Your task to perform on an android device: Go to Google maps Image 0: 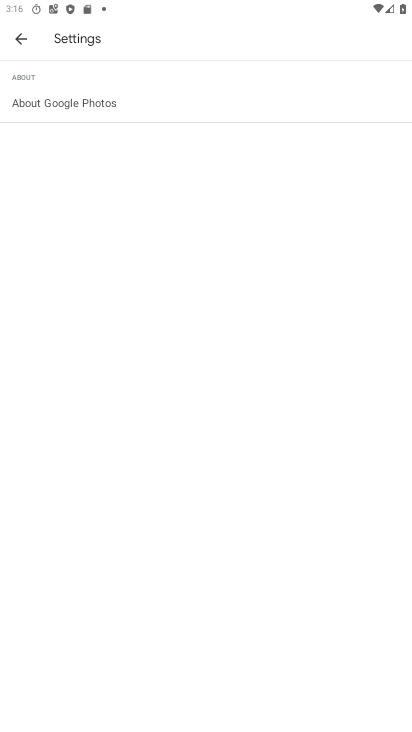
Step 0: press home button
Your task to perform on an android device: Go to Google maps Image 1: 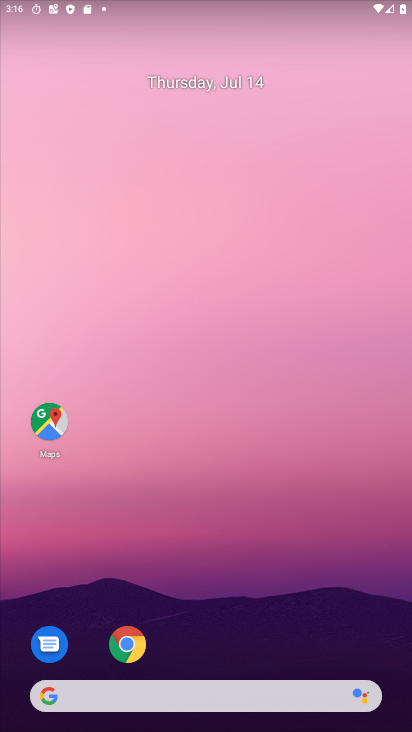
Step 1: click (50, 430)
Your task to perform on an android device: Go to Google maps Image 2: 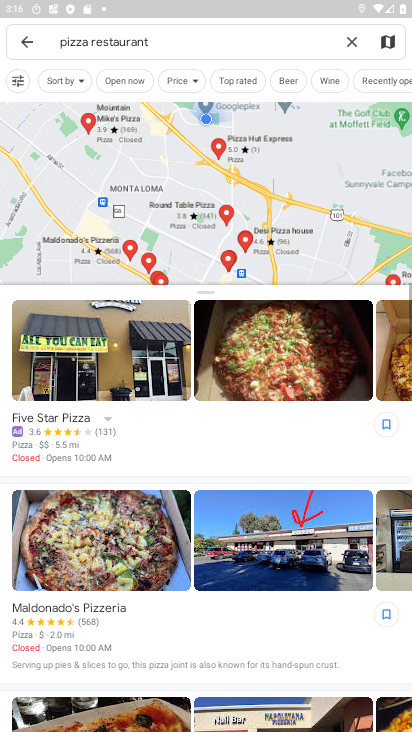
Step 2: click (19, 43)
Your task to perform on an android device: Go to Google maps Image 3: 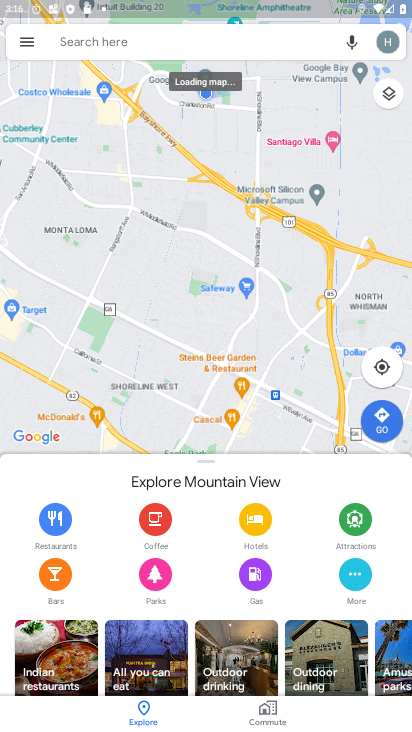
Step 3: task complete